Your task to perform on an android device: Go to Yahoo.com Image 0: 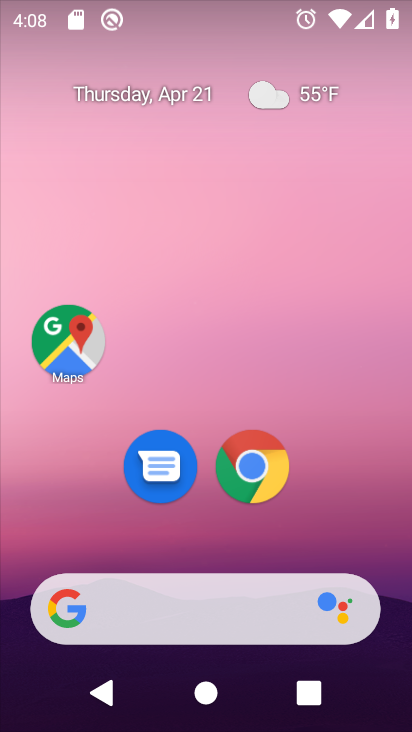
Step 0: drag from (264, 540) to (263, 102)
Your task to perform on an android device: Go to Yahoo.com Image 1: 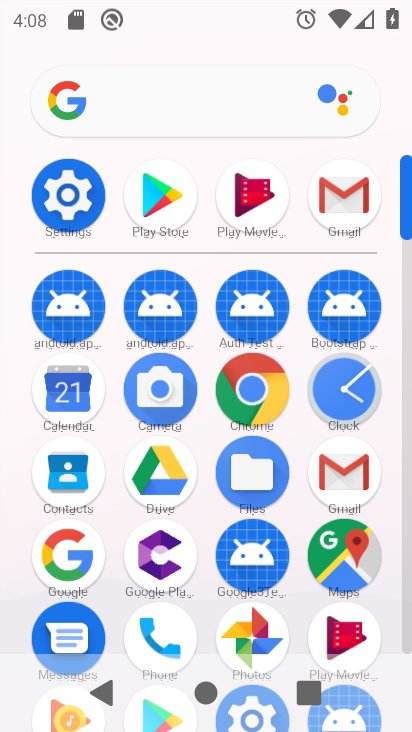
Step 1: click (262, 384)
Your task to perform on an android device: Go to Yahoo.com Image 2: 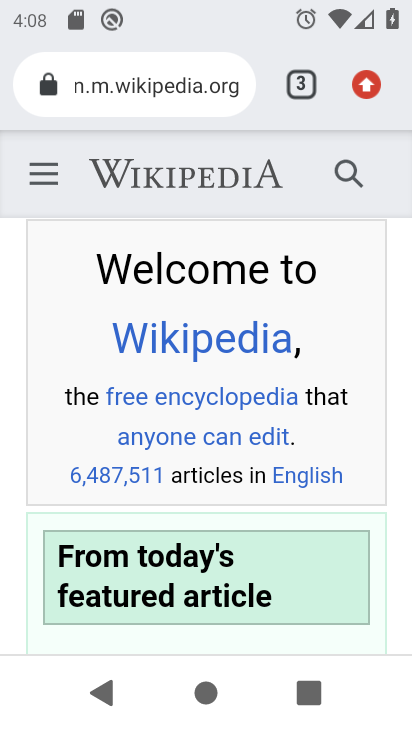
Step 2: click (303, 85)
Your task to perform on an android device: Go to Yahoo.com Image 3: 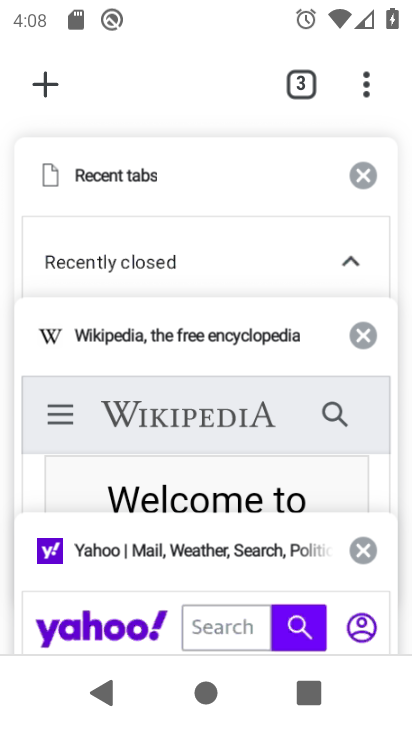
Step 3: click (199, 554)
Your task to perform on an android device: Go to Yahoo.com Image 4: 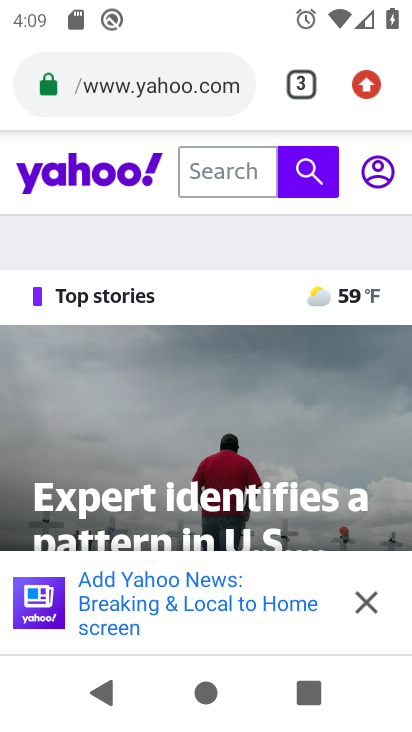
Step 4: task complete